Your task to perform on an android device: delete browsing data in the chrome app Image 0: 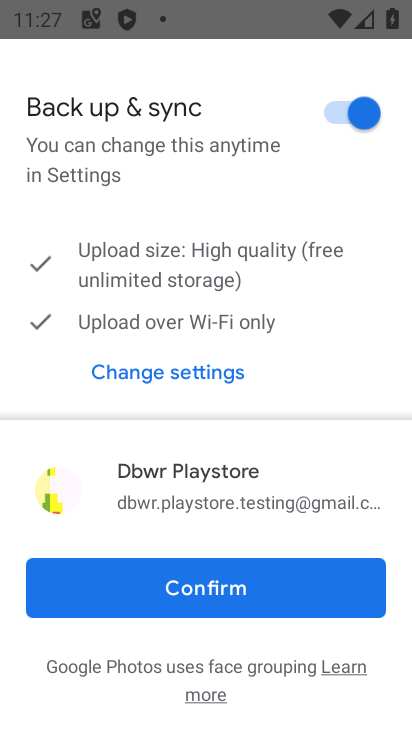
Step 0: press back button
Your task to perform on an android device: delete browsing data in the chrome app Image 1: 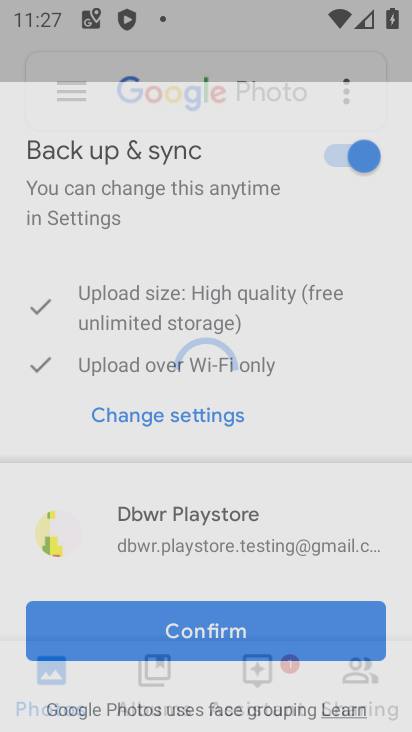
Step 1: press back button
Your task to perform on an android device: delete browsing data in the chrome app Image 2: 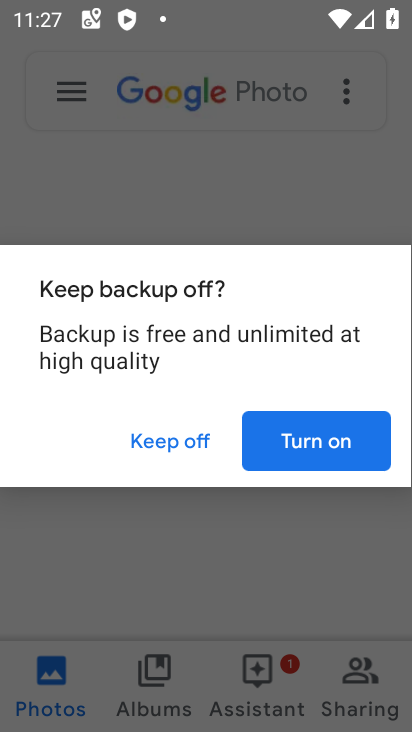
Step 2: press back button
Your task to perform on an android device: delete browsing data in the chrome app Image 3: 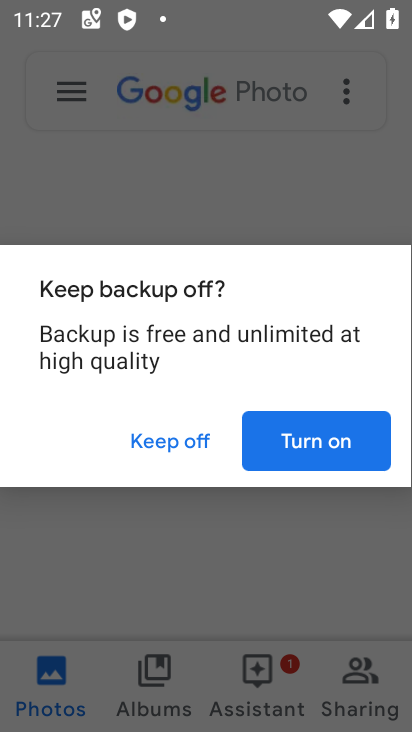
Step 3: press back button
Your task to perform on an android device: delete browsing data in the chrome app Image 4: 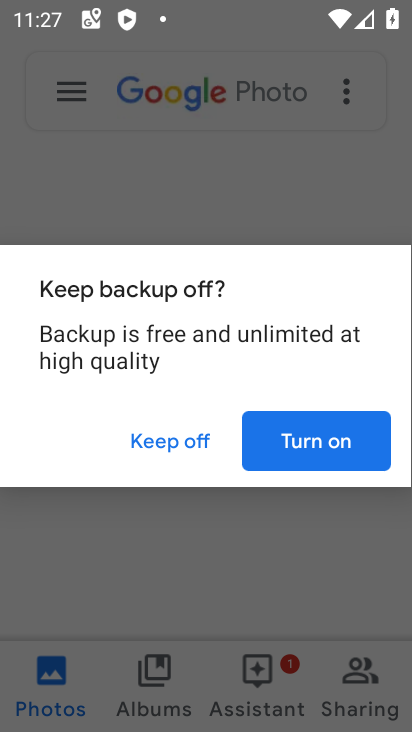
Step 4: press home button
Your task to perform on an android device: delete browsing data in the chrome app Image 5: 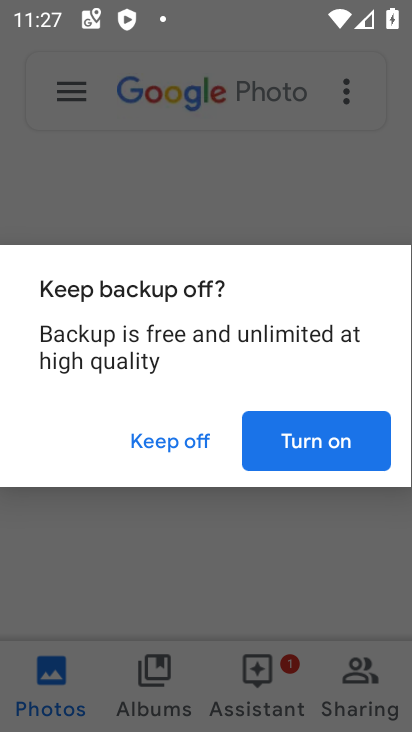
Step 5: press home button
Your task to perform on an android device: delete browsing data in the chrome app Image 6: 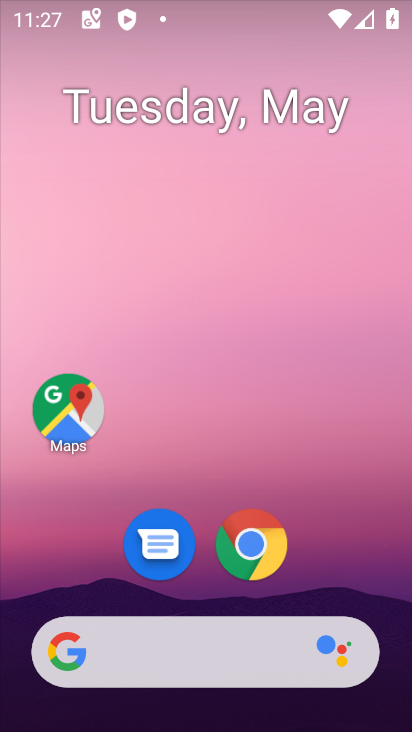
Step 6: click (235, 209)
Your task to perform on an android device: delete browsing data in the chrome app Image 7: 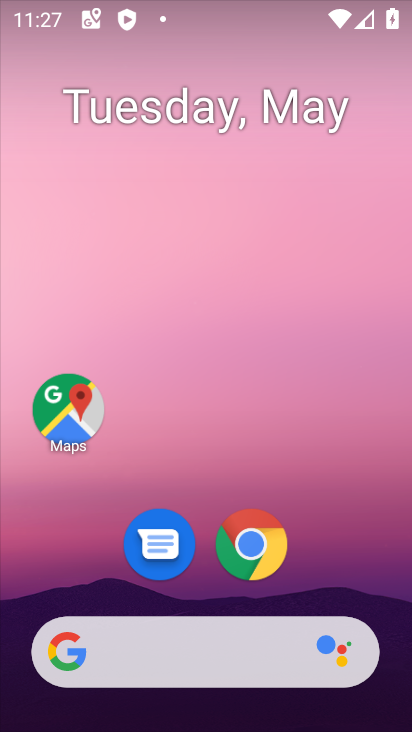
Step 7: drag from (320, 685) to (248, 124)
Your task to perform on an android device: delete browsing data in the chrome app Image 8: 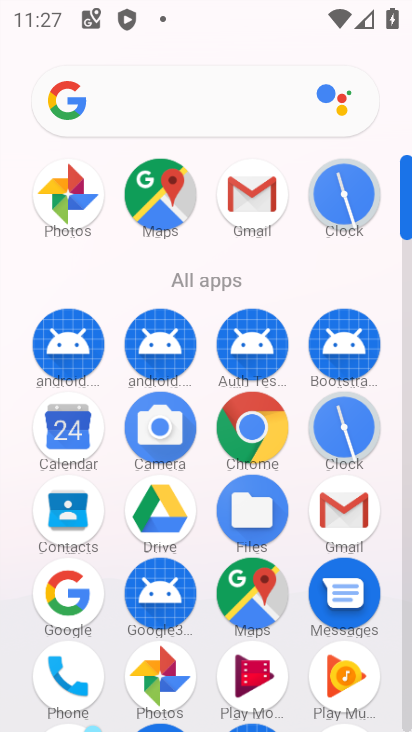
Step 8: click (252, 440)
Your task to perform on an android device: delete browsing data in the chrome app Image 9: 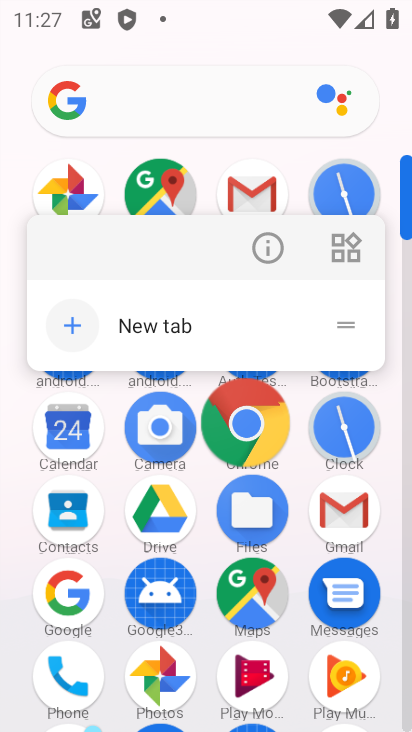
Step 9: click (245, 433)
Your task to perform on an android device: delete browsing data in the chrome app Image 10: 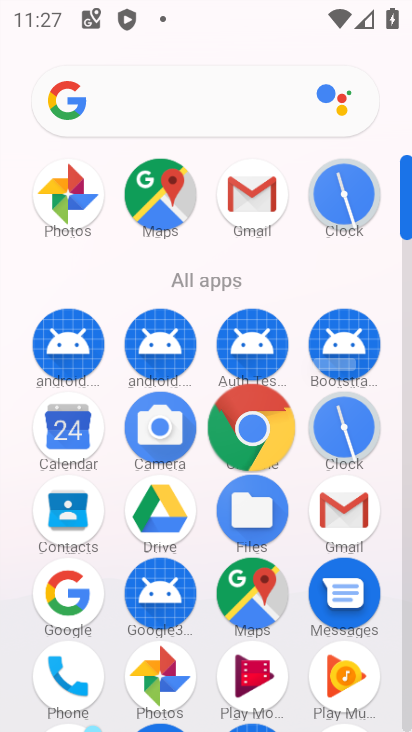
Step 10: click (238, 424)
Your task to perform on an android device: delete browsing data in the chrome app Image 11: 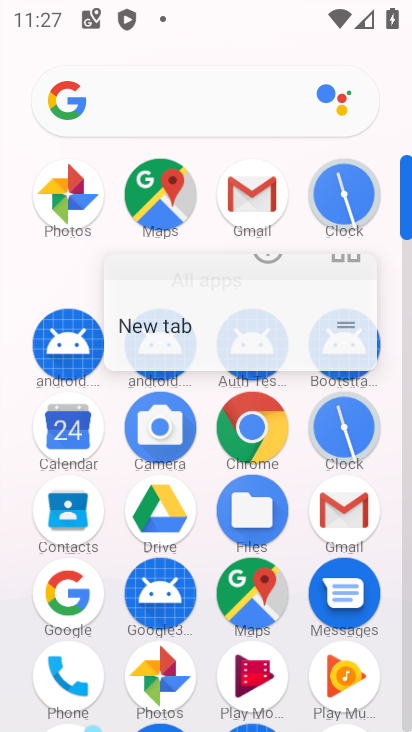
Step 11: click (238, 420)
Your task to perform on an android device: delete browsing data in the chrome app Image 12: 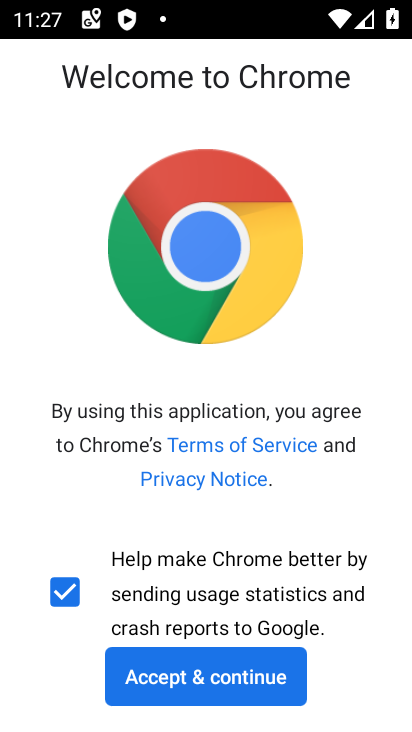
Step 12: click (217, 674)
Your task to perform on an android device: delete browsing data in the chrome app Image 13: 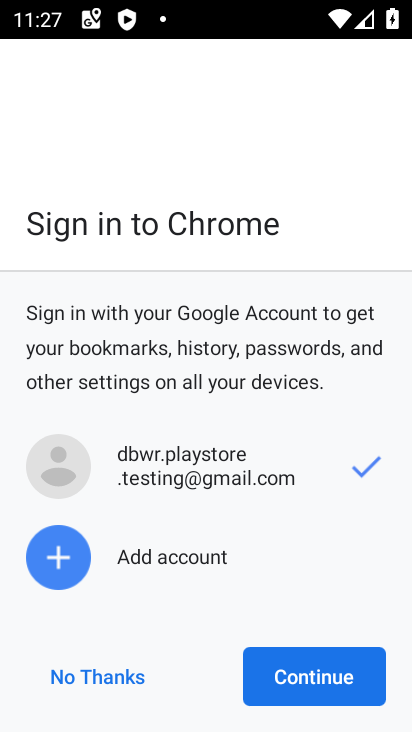
Step 13: click (312, 671)
Your task to perform on an android device: delete browsing data in the chrome app Image 14: 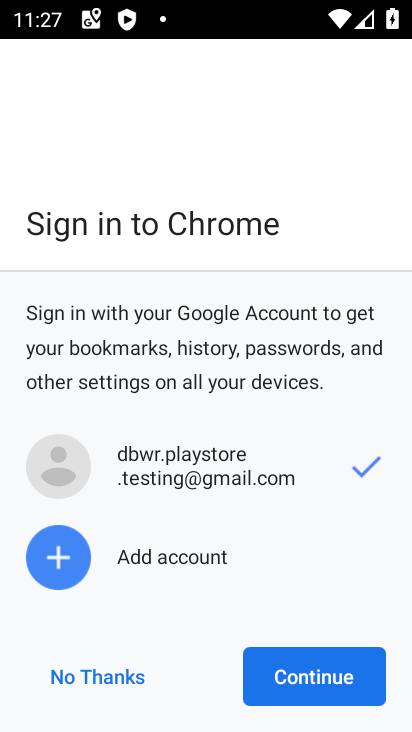
Step 14: click (312, 671)
Your task to perform on an android device: delete browsing data in the chrome app Image 15: 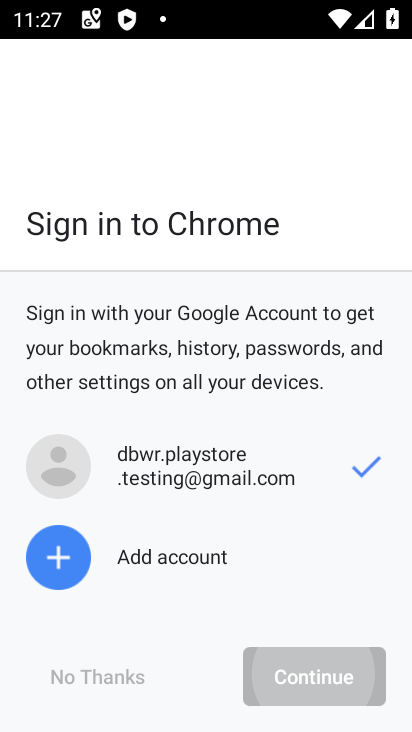
Step 15: click (311, 675)
Your task to perform on an android device: delete browsing data in the chrome app Image 16: 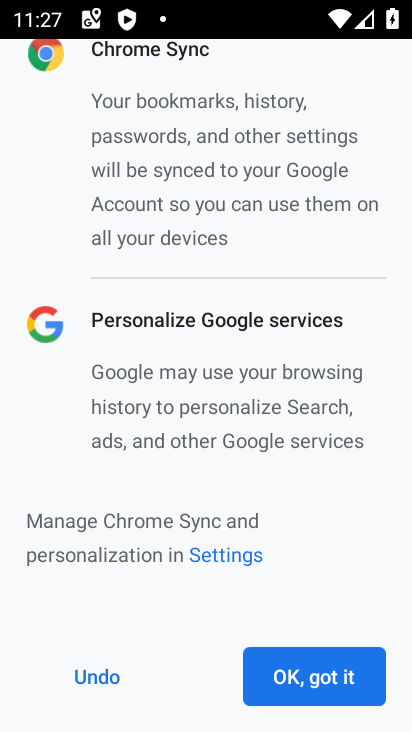
Step 16: click (310, 675)
Your task to perform on an android device: delete browsing data in the chrome app Image 17: 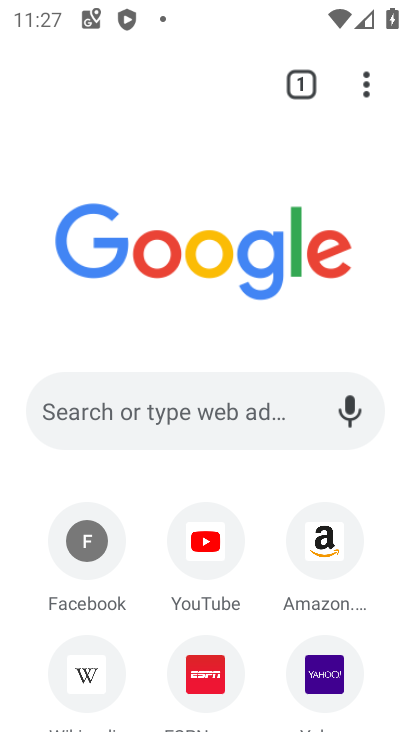
Step 17: press back button
Your task to perform on an android device: delete browsing data in the chrome app Image 18: 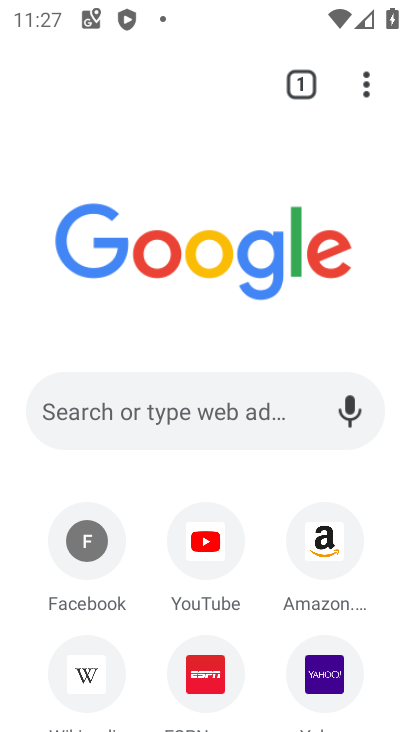
Step 18: press back button
Your task to perform on an android device: delete browsing data in the chrome app Image 19: 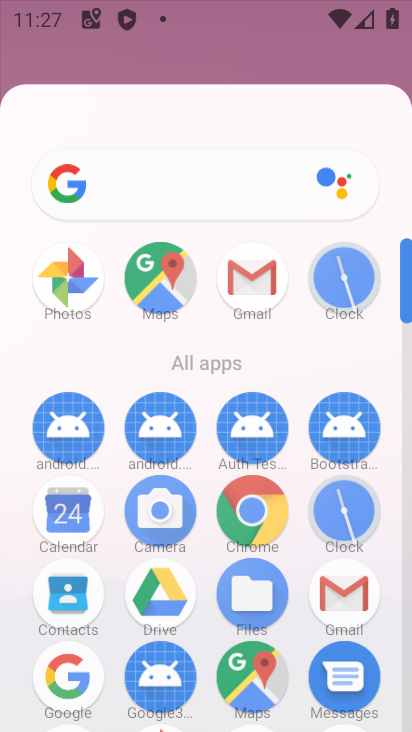
Step 19: press back button
Your task to perform on an android device: delete browsing data in the chrome app Image 20: 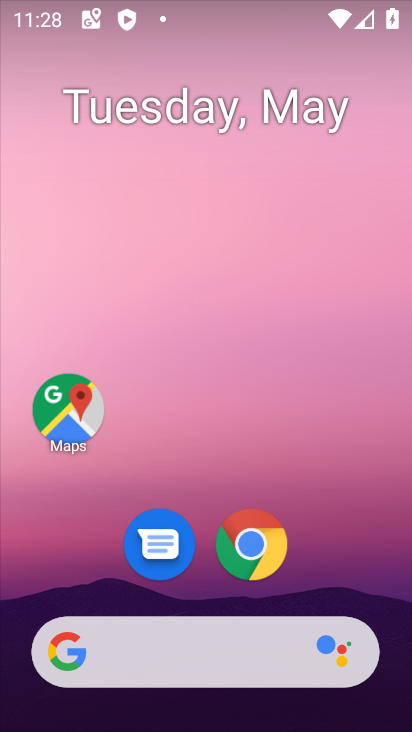
Step 20: drag from (301, 524) to (162, 27)
Your task to perform on an android device: delete browsing data in the chrome app Image 21: 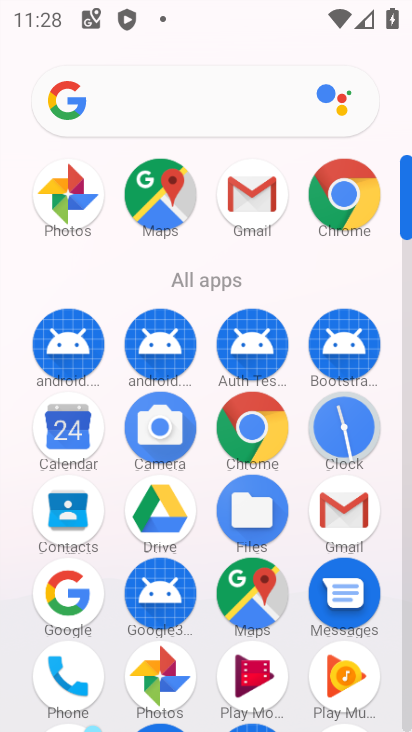
Step 21: click (344, 184)
Your task to perform on an android device: delete browsing data in the chrome app Image 22: 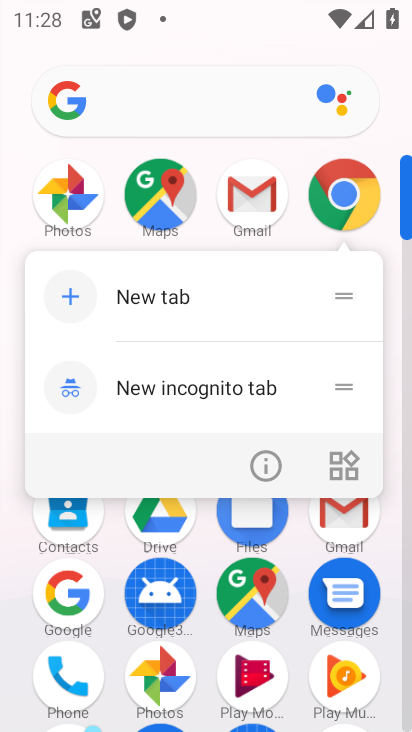
Step 22: click (353, 195)
Your task to perform on an android device: delete browsing data in the chrome app Image 23: 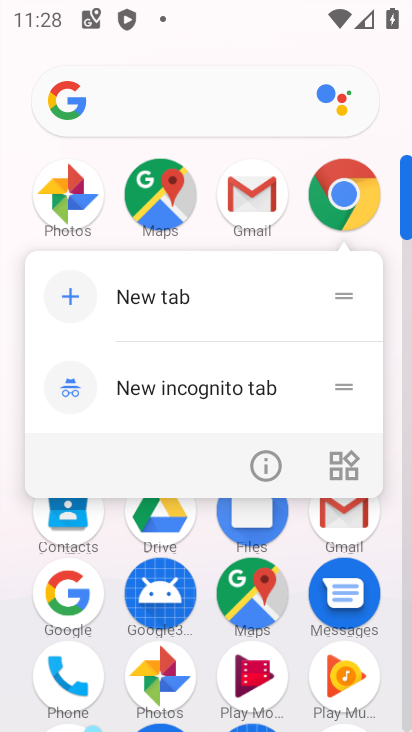
Step 23: click (353, 195)
Your task to perform on an android device: delete browsing data in the chrome app Image 24: 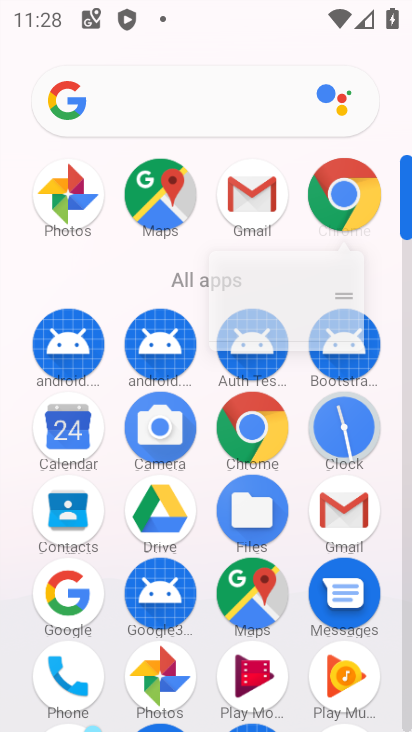
Step 24: click (353, 195)
Your task to perform on an android device: delete browsing data in the chrome app Image 25: 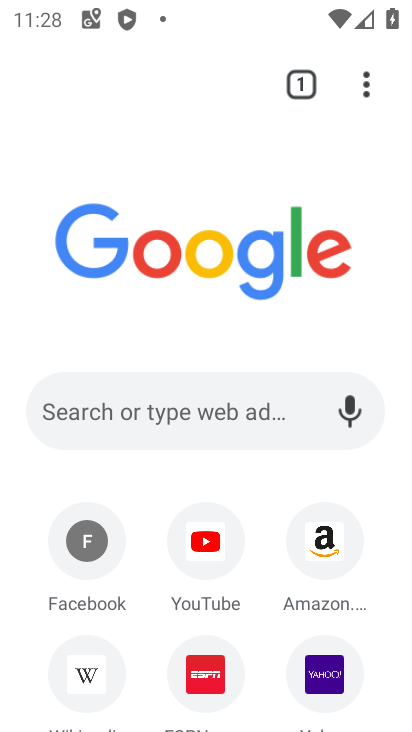
Step 25: drag from (361, 85) to (59, 360)
Your task to perform on an android device: delete browsing data in the chrome app Image 26: 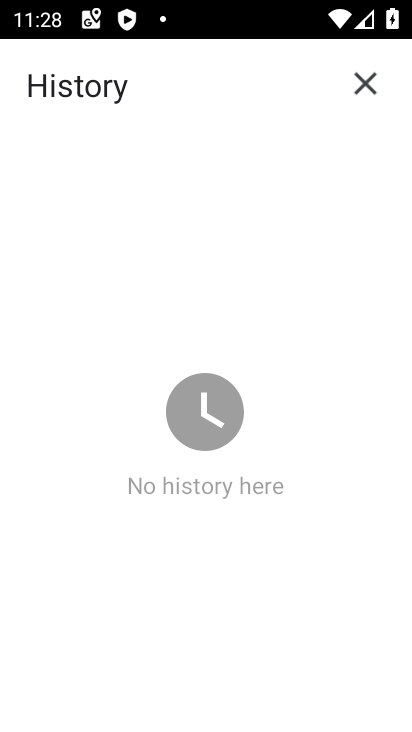
Step 26: click (105, 401)
Your task to perform on an android device: delete browsing data in the chrome app Image 27: 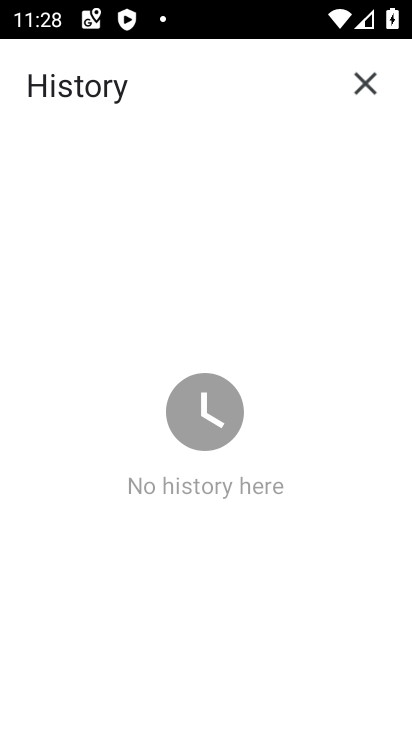
Step 27: task complete